Your task to perform on an android device: Open Google Maps and go to "Timeline" Image 0: 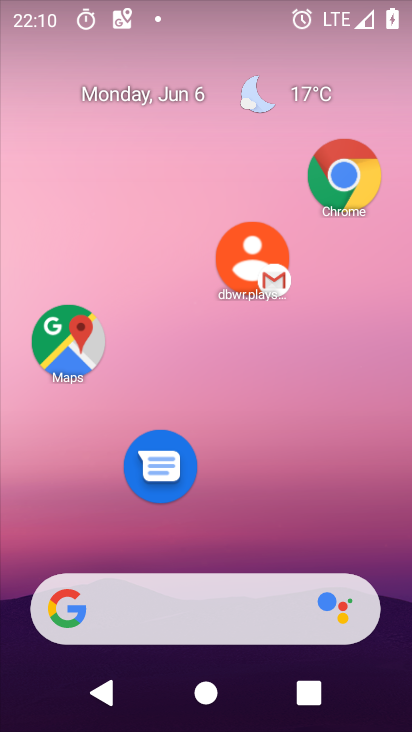
Step 0: drag from (224, 535) to (237, 372)
Your task to perform on an android device: Open Google Maps and go to "Timeline" Image 1: 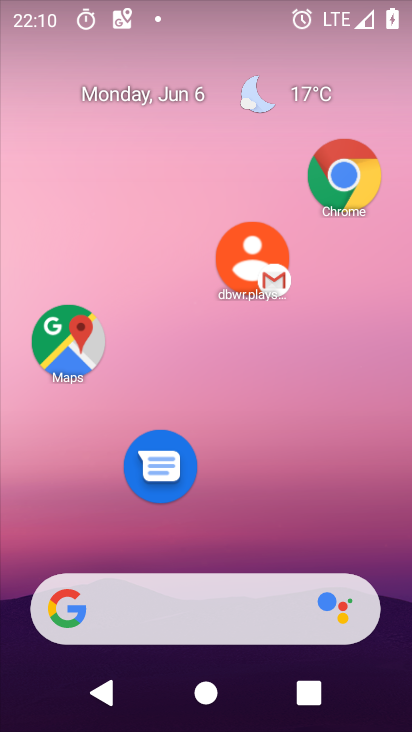
Step 1: drag from (235, 556) to (226, 243)
Your task to perform on an android device: Open Google Maps and go to "Timeline" Image 2: 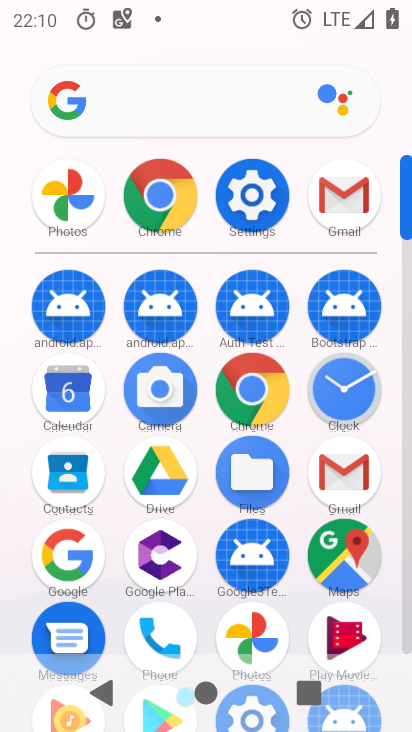
Step 2: drag from (202, 672) to (234, 391)
Your task to perform on an android device: Open Google Maps and go to "Timeline" Image 3: 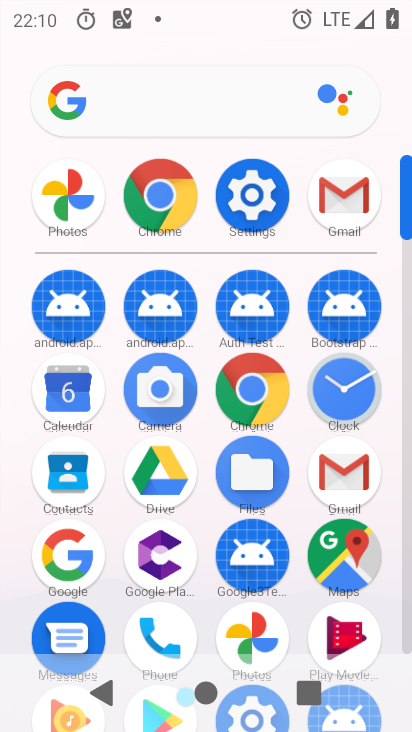
Step 3: drag from (210, 516) to (204, 105)
Your task to perform on an android device: Open Google Maps and go to "Timeline" Image 4: 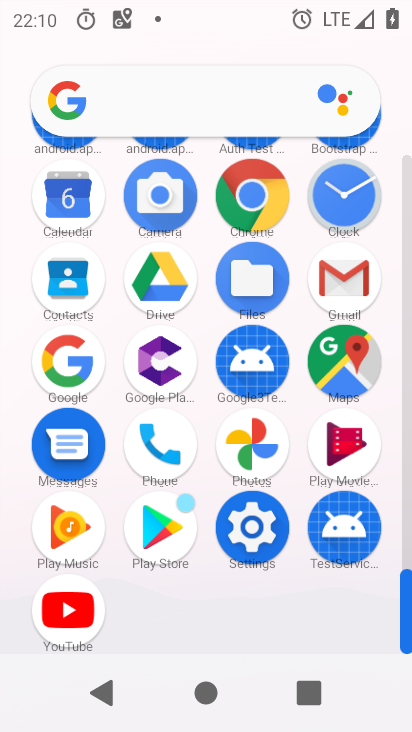
Step 4: drag from (204, 479) to (201, 264)
Your task to perform on an android device: Open Google Maps and go to "Timeline" Image 5: 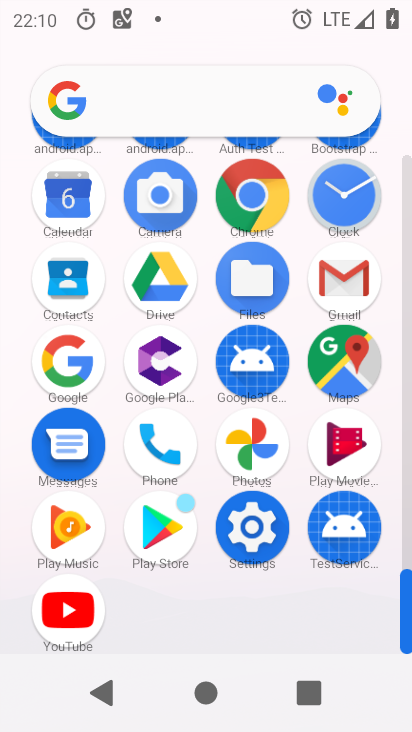
Step 5: drag from (63, 367) to (196, 139)
Your task to perform on an android device: Open Google Maps and go to "Timeline" Image 6: 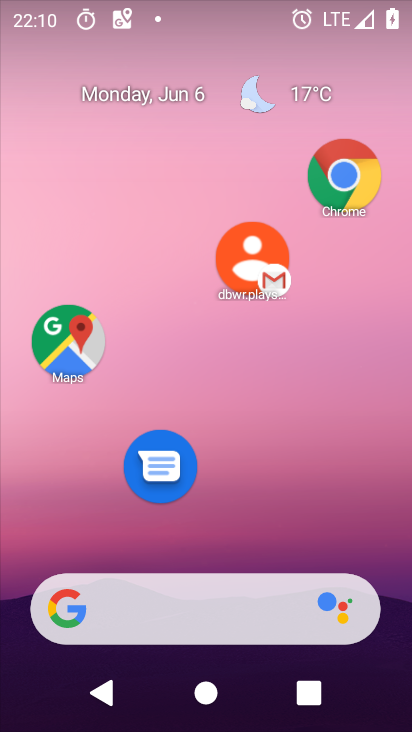
Step 6: drag from (229, 485) to (275, 100)
Your task to perform on an android device: Open Google Maps and go to "Timeline" Image 7: 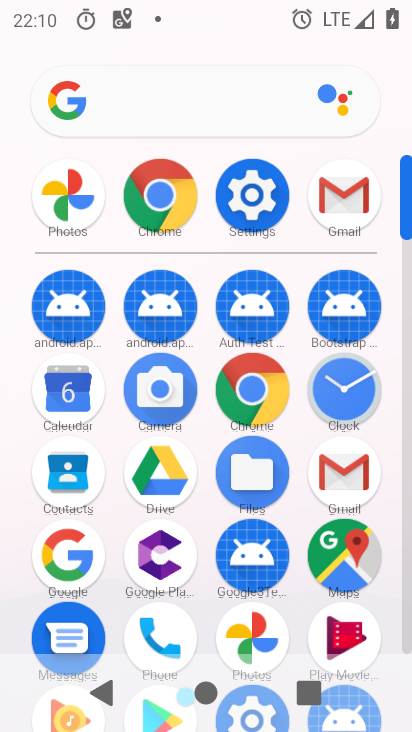
Step 7: click (349, 542)
Your task to perform on an android device: Open Google Maps and go to "Timeline" Image 8: 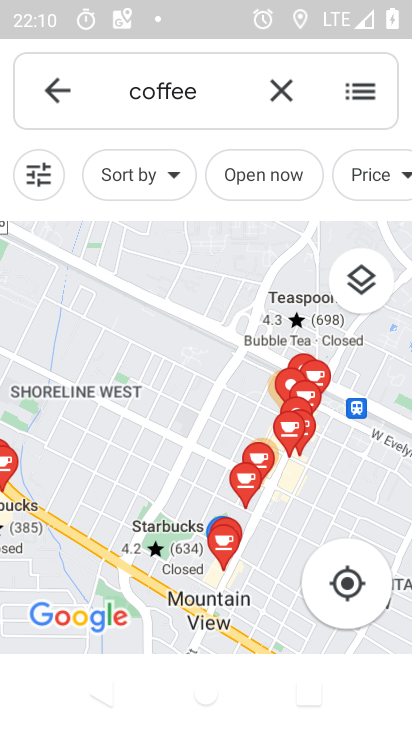
Step 8: click (55, 82)
Your task to perform on an android device: Open Google Maps and go to "Timeline" Image 9: 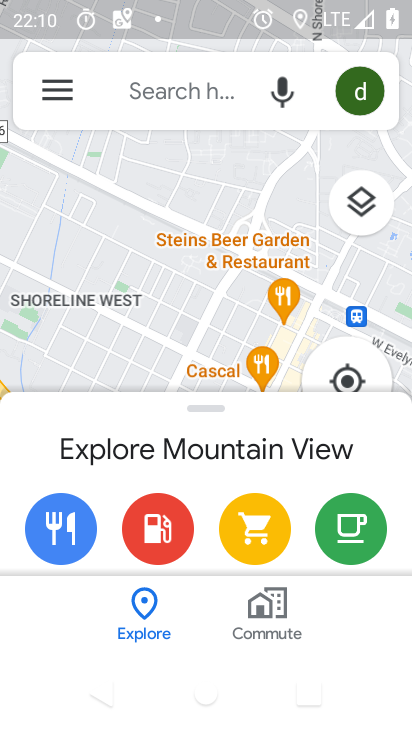
Step 9: click (55, 82)
Your task to perform on an android device: Open Google Maps and go to "Timeline" Image 10: 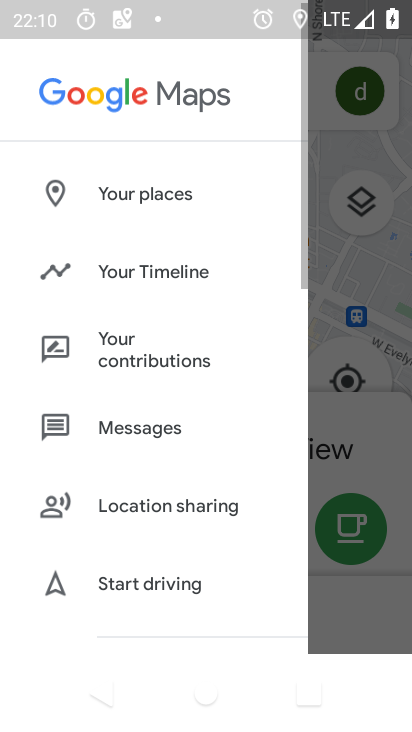
Step 10: click (164, 273)
Your task to perform on an android device: Open Google Maps and go to "Timeline" Image 11: 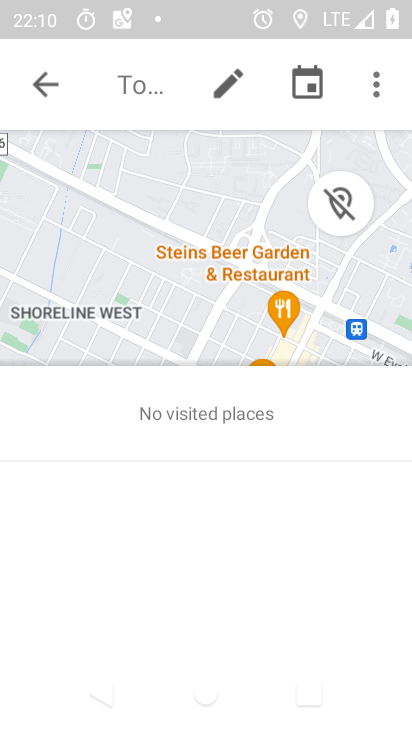
Step 11: task complete